Your task to perform on an android device: change your default location settings in chrome Image 0: 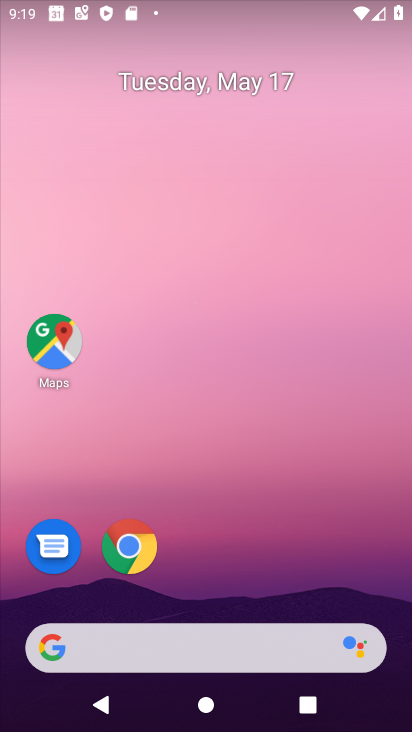
Step 0: click (130, 545)
Your task to perform on an android device: change your default location settings in chrome Image 1: 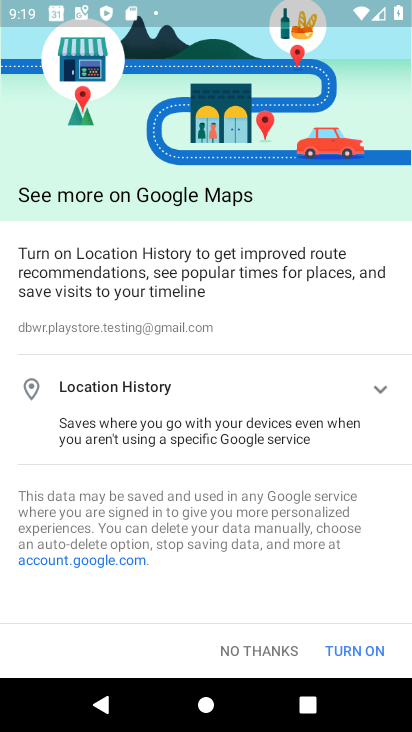
Step 1: click (242, 648)
Your task to perform on an android device: change your default location settings in chrome Image 2: 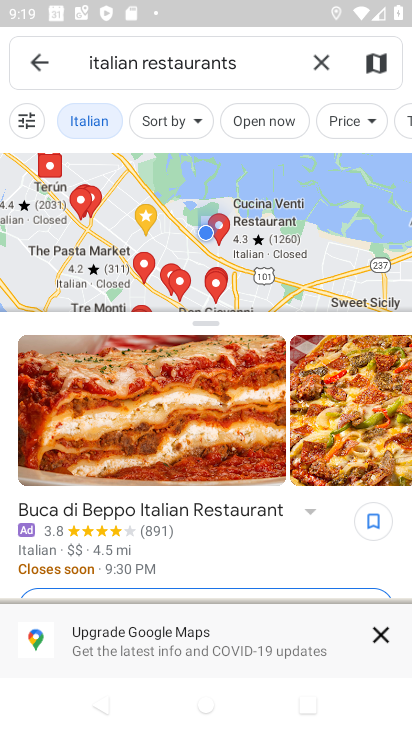
Step 2: press home button
Your task to perform on an android device: change your default location settings in chrome Image 3: 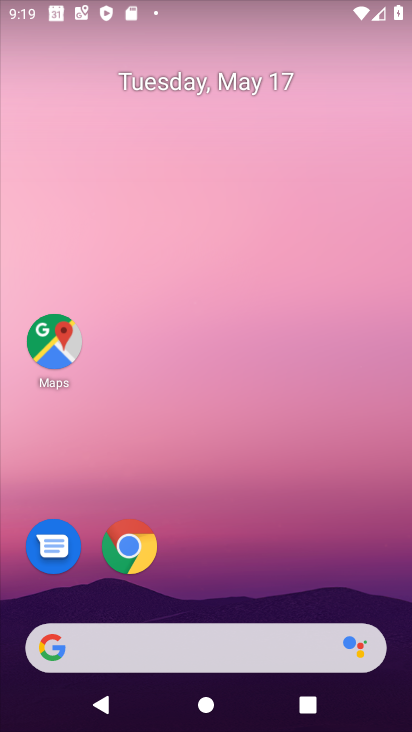
Step 3: click (119, 549)
Your task to perform on an android device: change your default location settings in chrome Image 4: 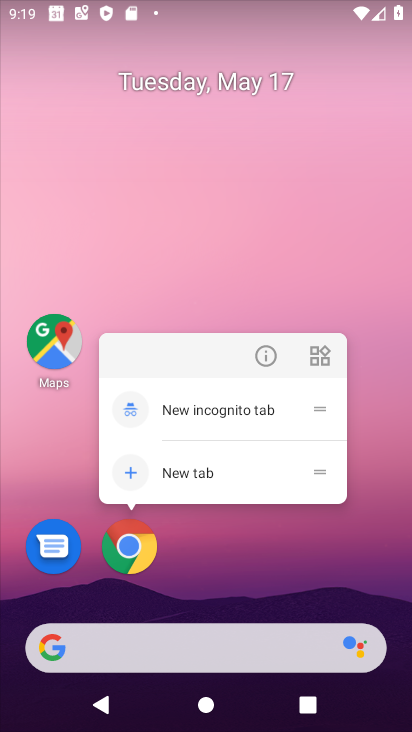
Step 4: click (118, 549)
Your task to perform on an android device: change your default location settings in chrome Image 5: 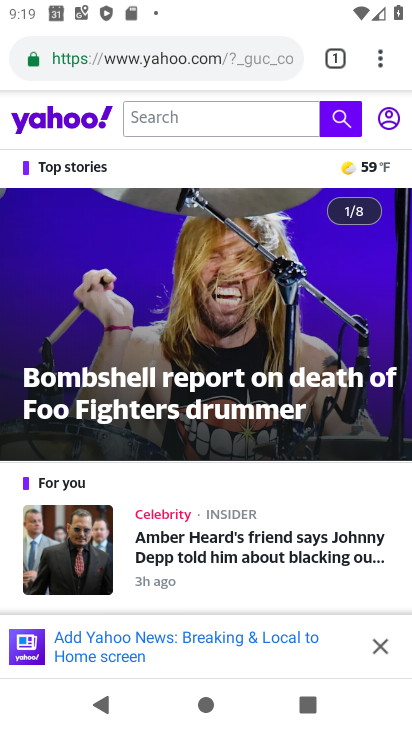
Step 5: click (379, 65)
Your task to perform on an android device: change your default location settings in chrome Image 6: 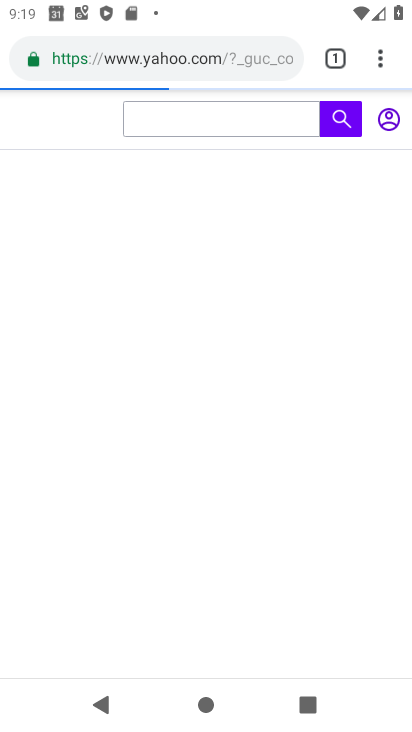
Step 6: click (379, 67)
Your task to perform on an android device: change your default location settings in chrome Image 7: 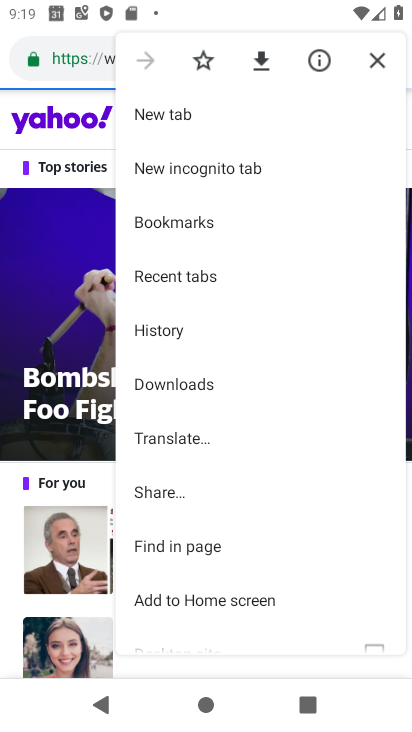
Step 7: drag from (304, 517) to (279, 305)
Your task to perform on an android device: change your default location settings in chrome Image 8: 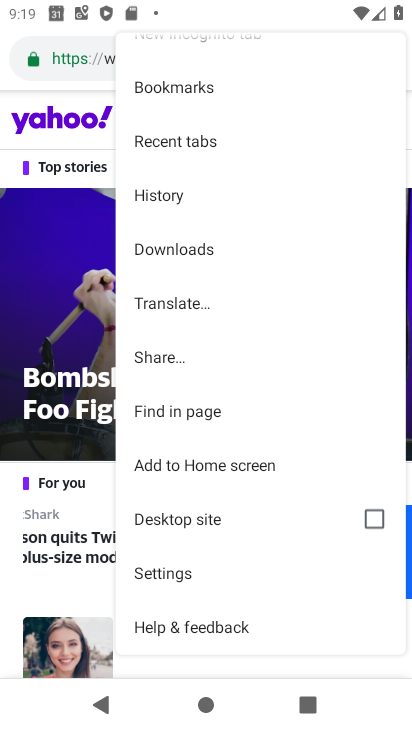
Step 8: click (231, 573)
Your task to perform on an android device: change your default location settings in chrome Image 9: 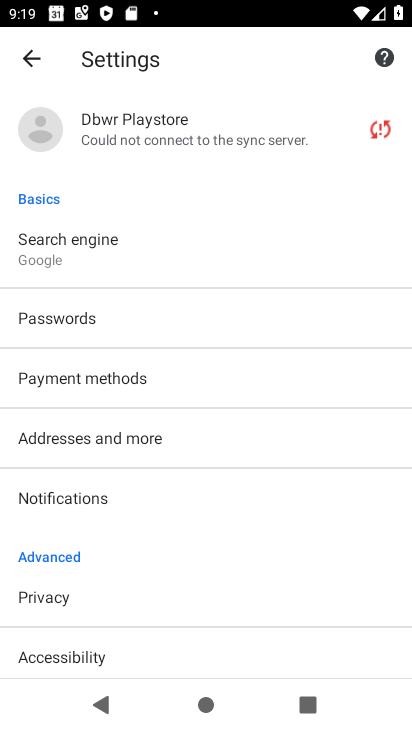
Step 9: drag from (192, 639) to (265, 223)
Your task to perform on an android device: change your default location settings in chrome Image 10: 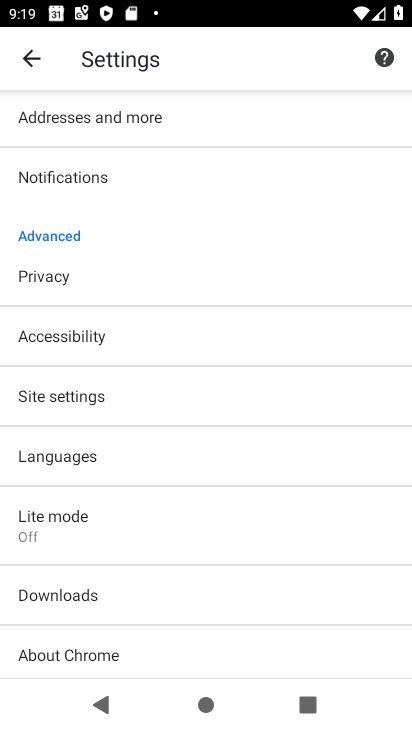
Step 10: click (138, 404)
Your task to perform on an android device: change your default location settings in chrome Image 11: 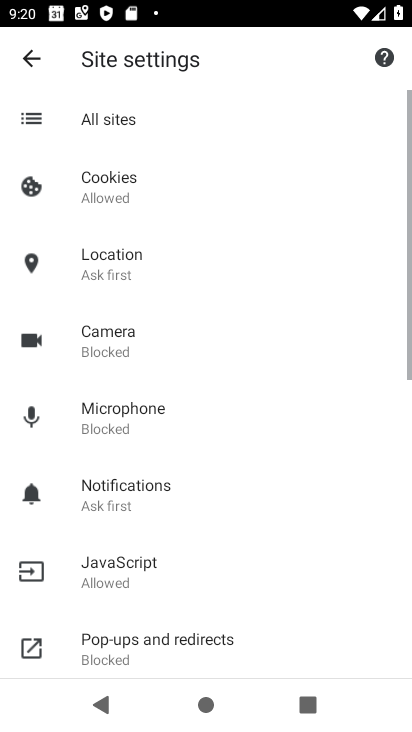
Step 11: click (191, 265)
Your task to perform on an android device: change your default location settings in chrome Image 12: 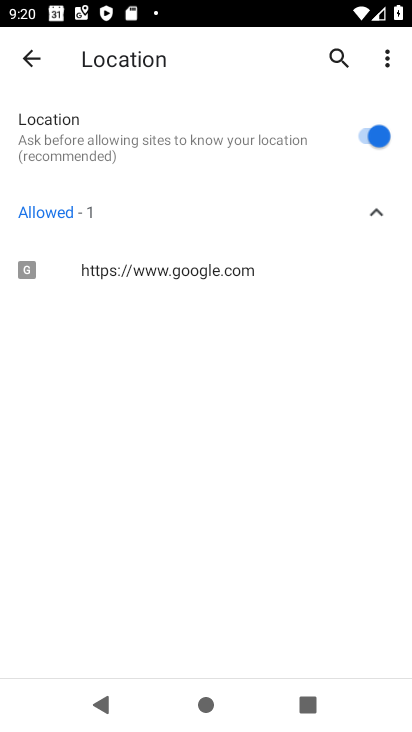
Step 12: click (344, 140)
Your task to perform on an android device: change your default location settings in chrome Image 13: 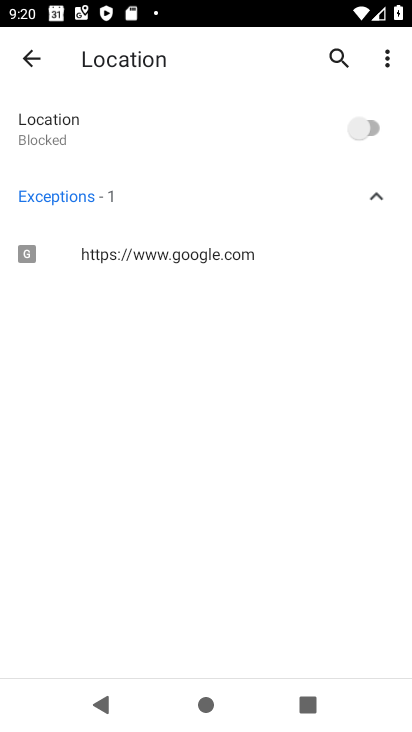
Step 13: task complete